Your task to perform on an android device: turn off improve location accuracy Image 0: 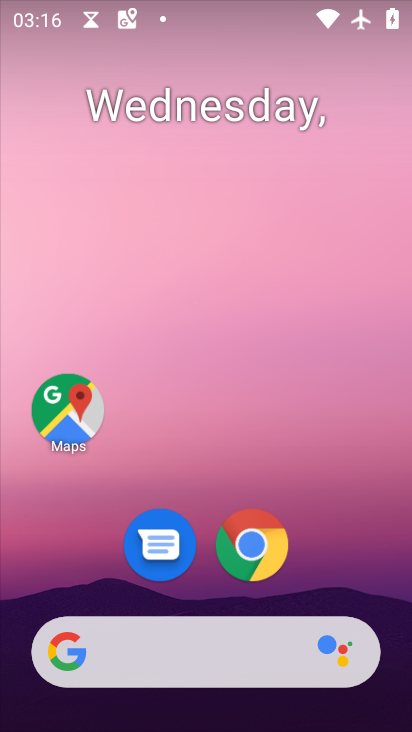
Step 0: press home button
Your task to perform on an android device: turn off improve location accuracy Image 1: 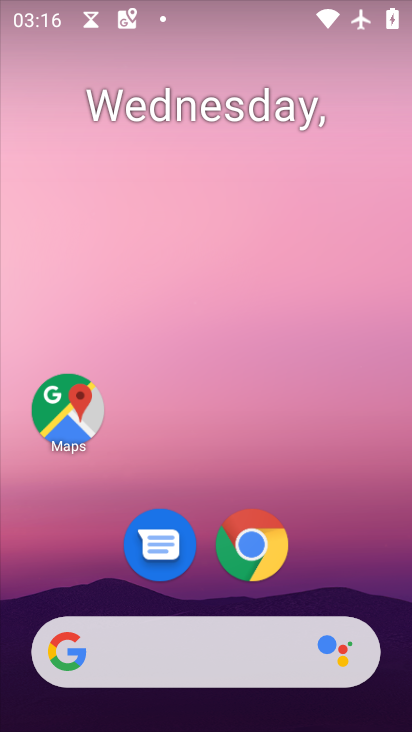
Step 1: drag from (207, 658) to (308, 14)
Your task to perform on an android device: turn off improve location accuracy Image 2: 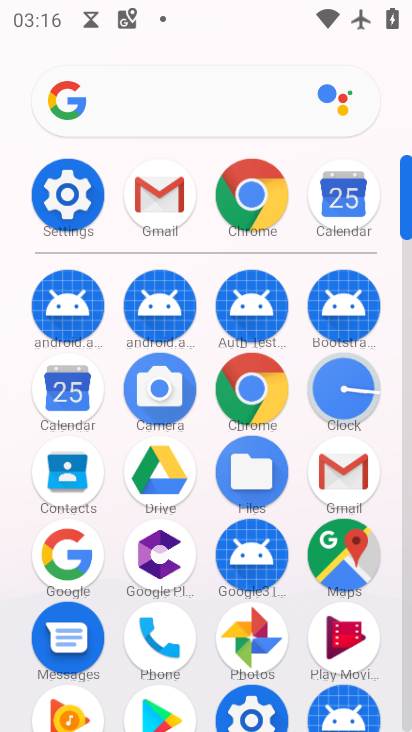
Step 2: click (56, 209)
Your task to perform on an android device: turn off improve location accuracy Image 3: 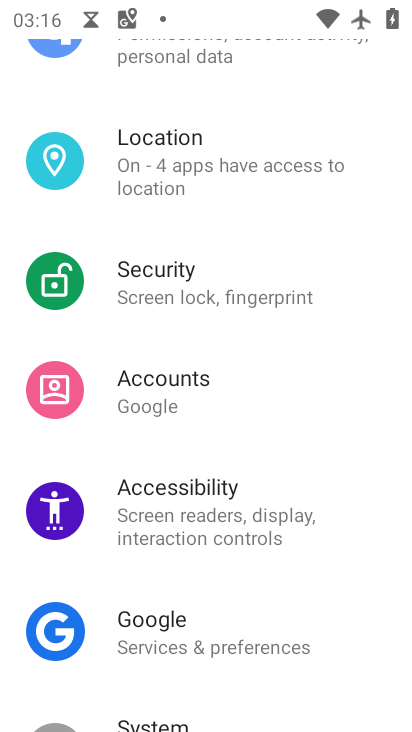
Step 3: click (177, 141)
Your task to perform on an android device: turn off improve location accuracy Image 4: 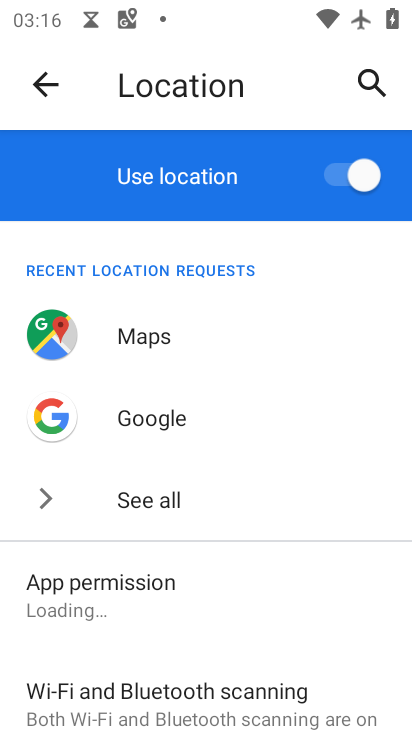
Step 4: drag from (187, 608) to (360, 227)
Your task to perform on an android device: turn off improve location accuracy Image 5: 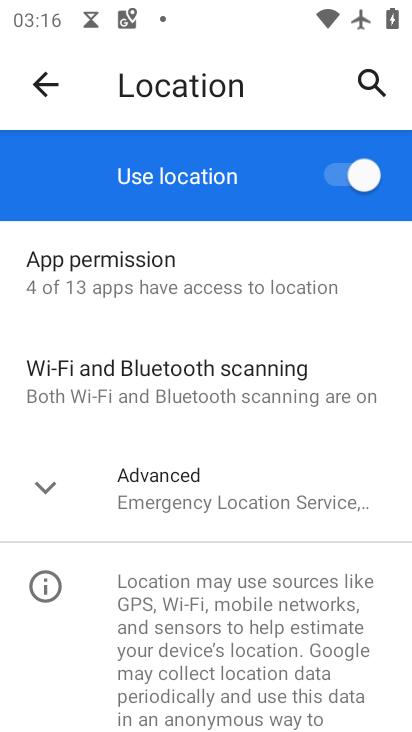
Step 5: click (192, 493)
Your task to perform on an android device: turn off improve location accuracy Image 6: 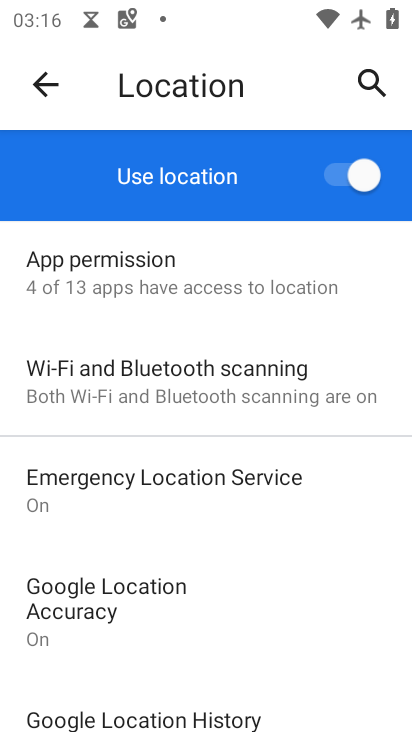
Step 6: click (117, 615)
Your task to perform on an android device: turn off improve location accuracy Image 7: 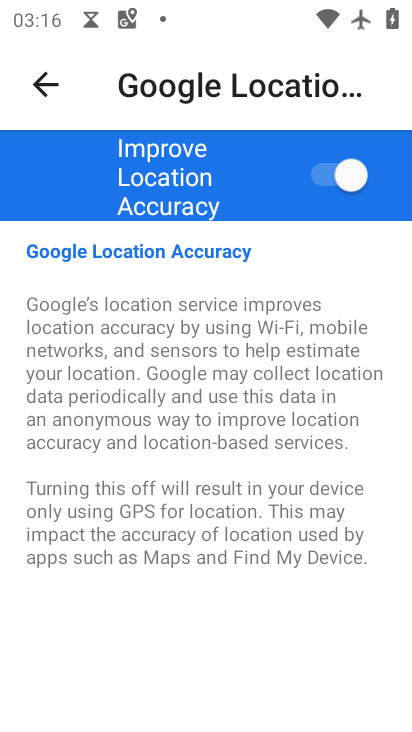
Step 7: click (329, 171)
Your task to perform on an android device: turn off improve location accuracy Image 8: 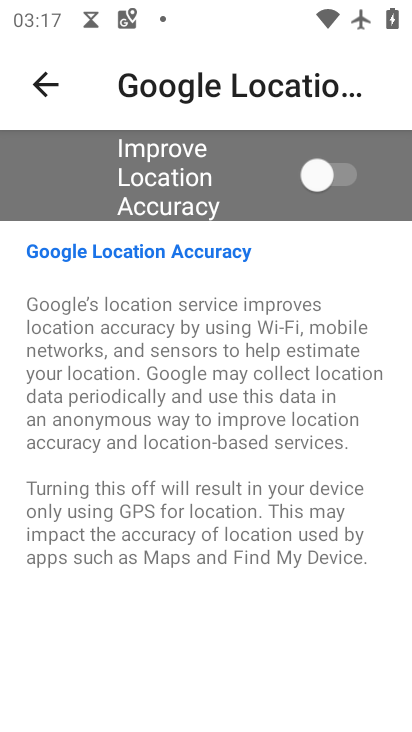
Step 8: task complete